Your task to perform on an android device: Go to notification settings Image 0: 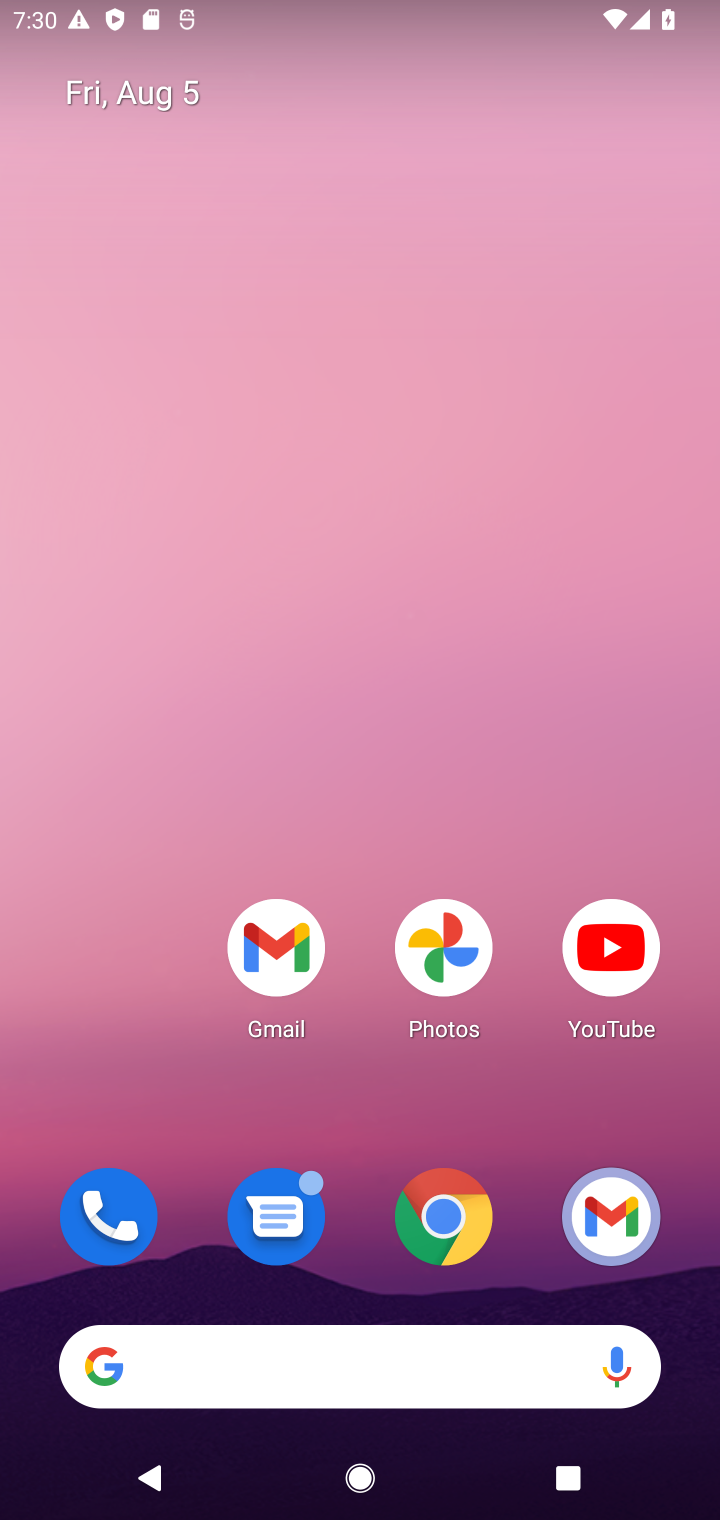
Step 0: drag from (384, 1120) to (269, 534)
Your task to perform on an android device: Go to notification settings Image 1: 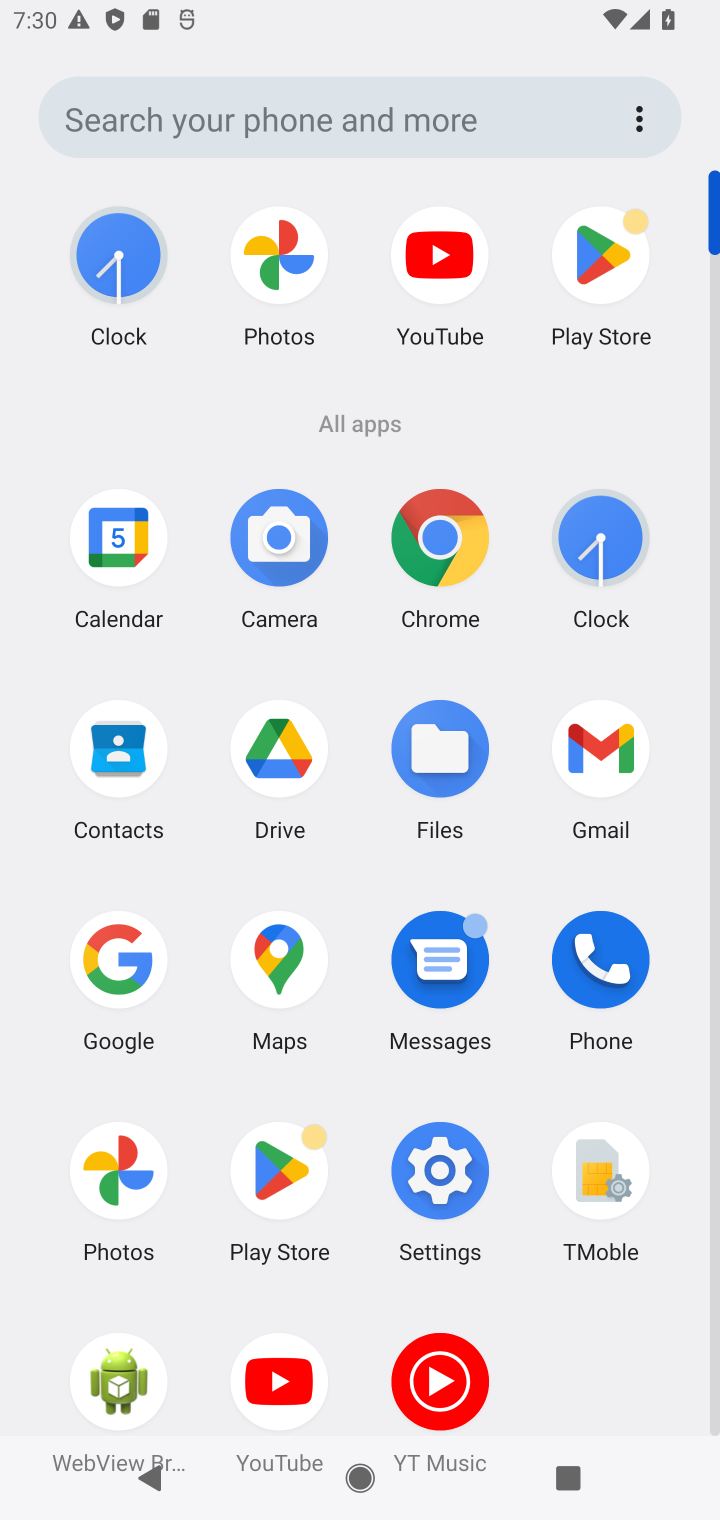
Step 1: click (424, 1163)
Your task to perform on an android device: Go to notification settings Image 2: 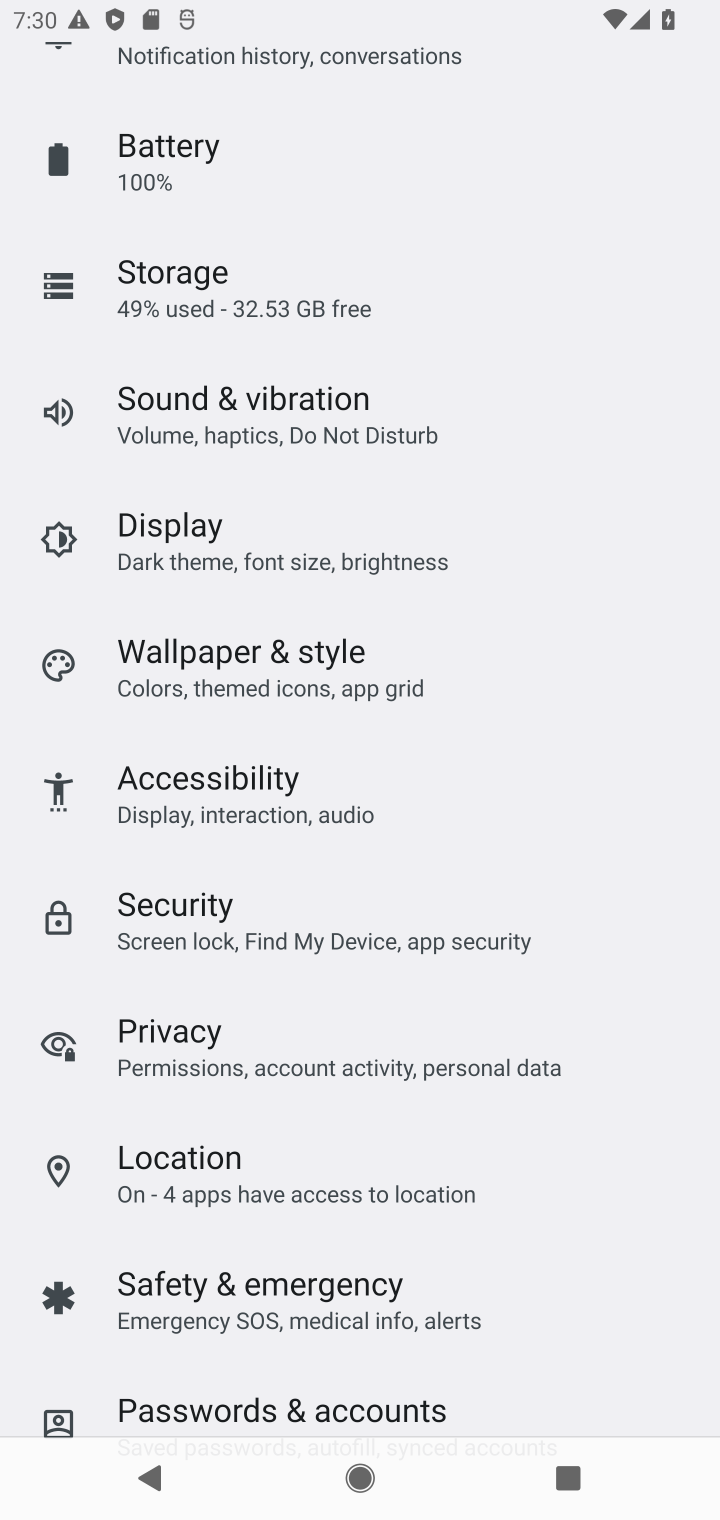
Step 2: drag from (361, 293) to (367, 794)
Your task to perform on an android device: Go to notification settings Image 3: 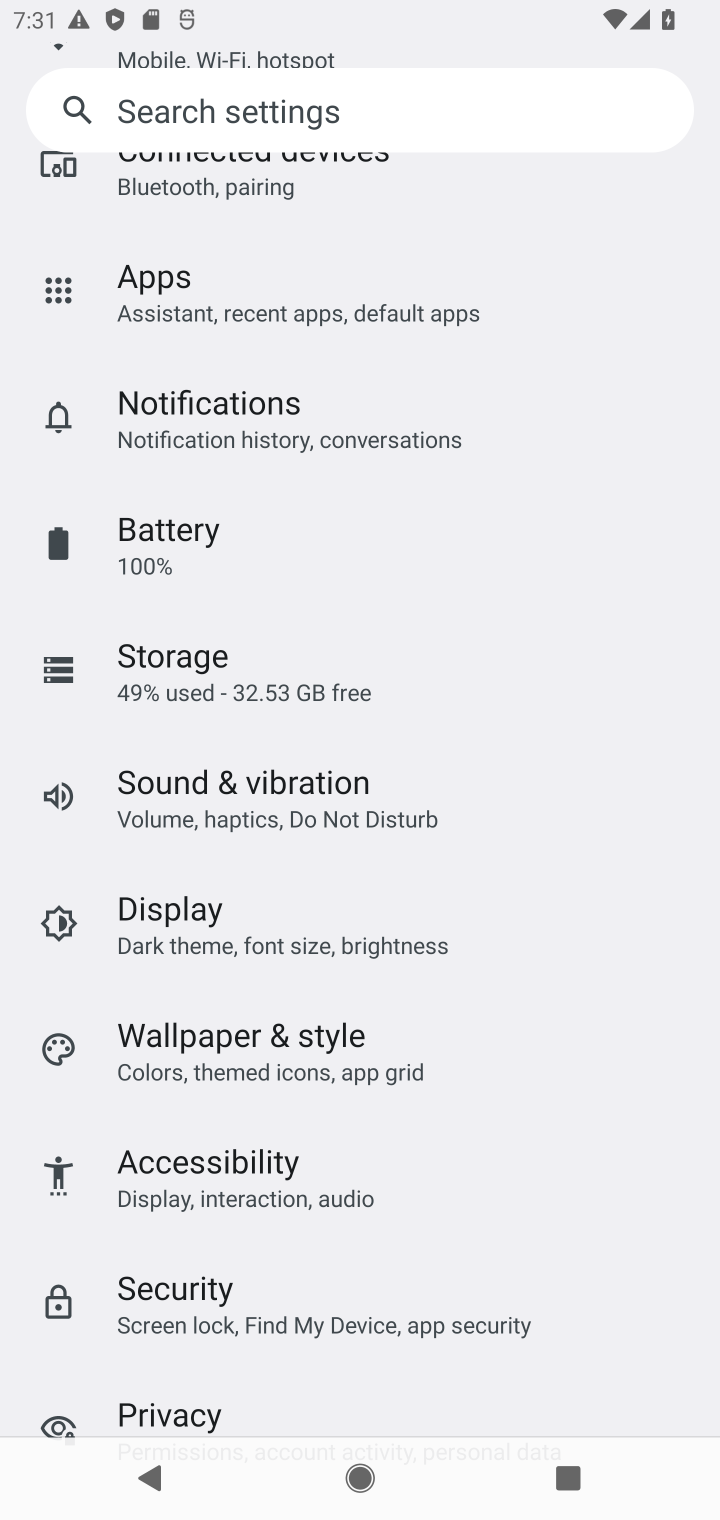
Step 3: click (367, 405)
Your task to perform on an android device: Go to notification settings Image 4: 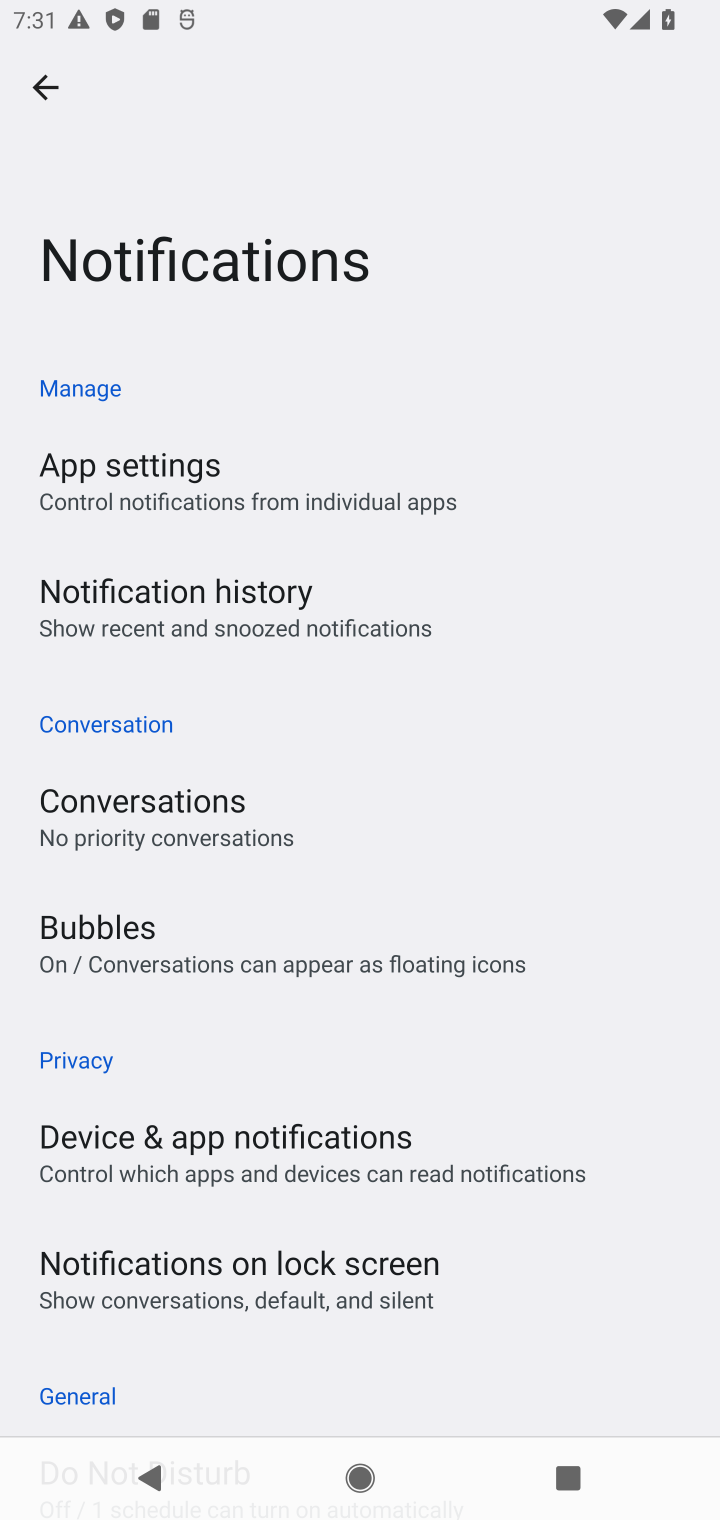
Step 4: task complete